Your task to perform on an android device: change your default location settings in chrome Image 0: 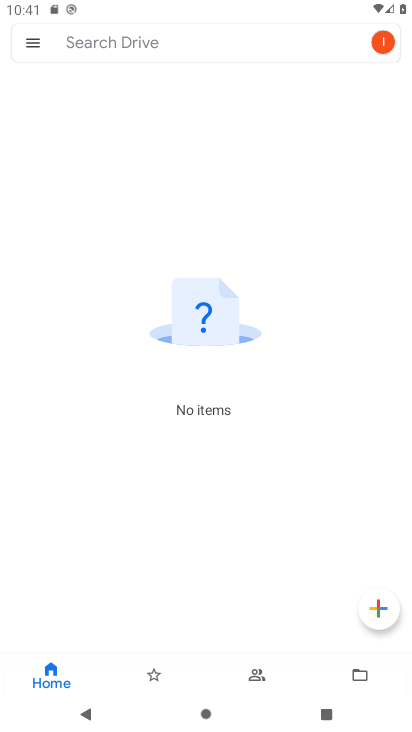
Step 0: press home button
Your task to perform on an android device: change your default location settings in chrome Image 1: 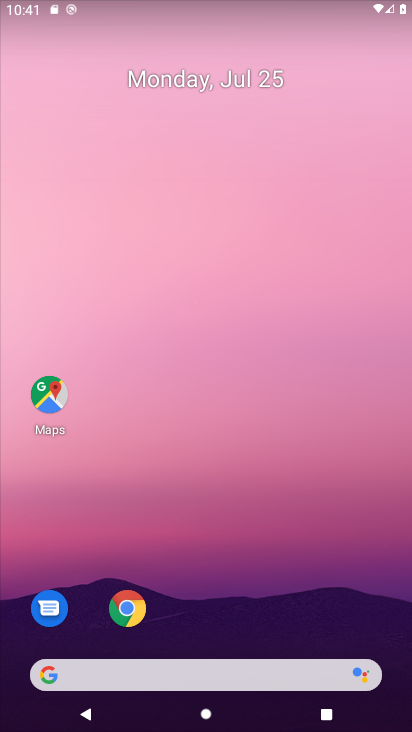
Step 1: click (127, 613)
Your task to perform on an android device: change your default location settings in chrome Image 2: 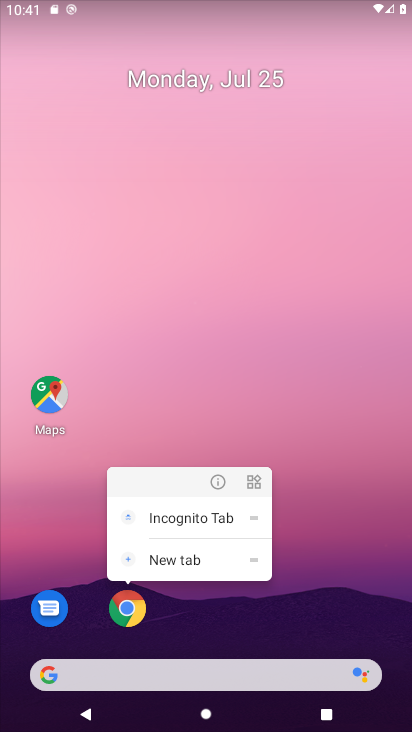
Step 2: click (127, 610)
Your task to perform on an android device: change your default location settings in chrome Image 3: 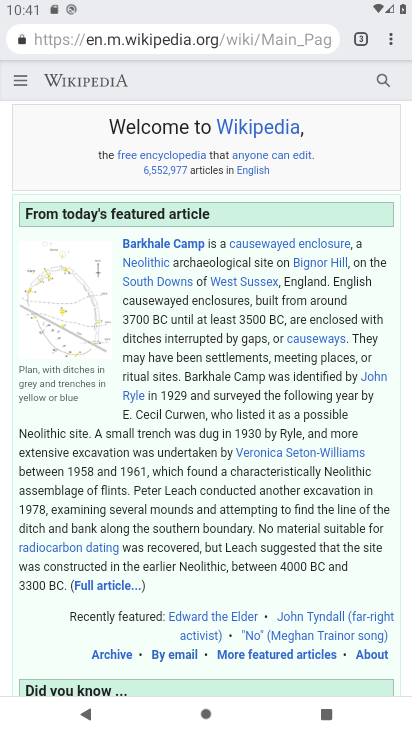
Step 3: click (392, 36)
Your task to perform on an android device: change your default location settings in chrome Image 4: 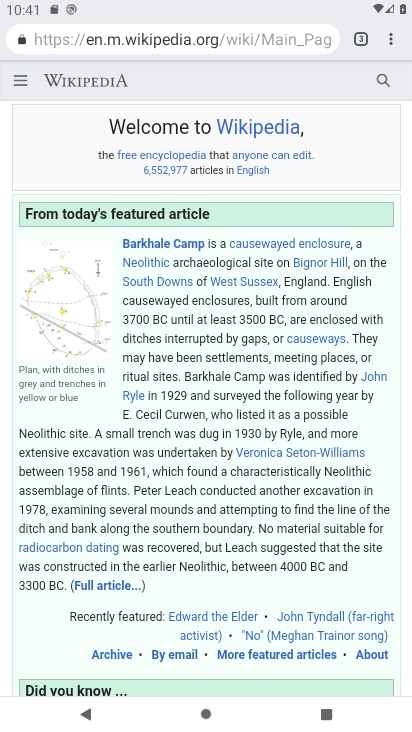
Step 4: click (392, 36)
Your task to perform on an android device: change your default location settings in chrome Image 5: 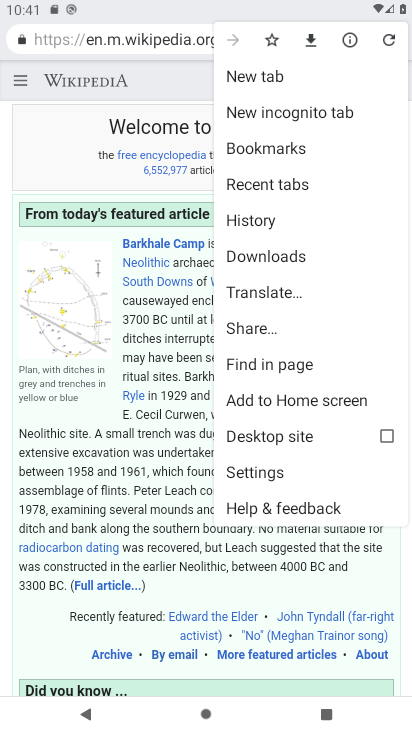
Step 5: click (264, 482)
Your task to perform on an android device: change your default location settings in chrome Image 6: 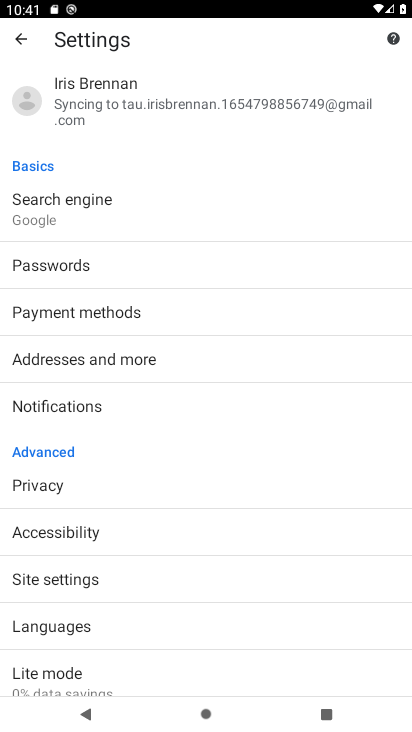
Step 6: click (92, 583)
Your task to perform on an android device: change your default location settings in chrome Image 7: 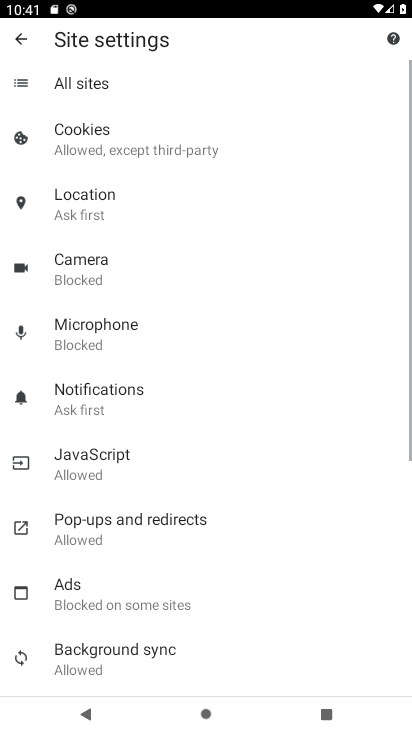
Step 7: click (138, 196)
Your task to perform on an android device: change your default location settings in chrome Image 8: 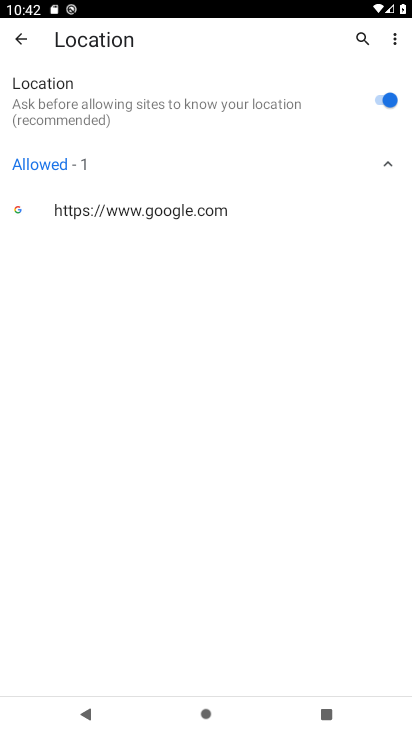
Step 8: click (388, 99)
Your task to perform on an android device: change your default location settings in chrome Image 9: 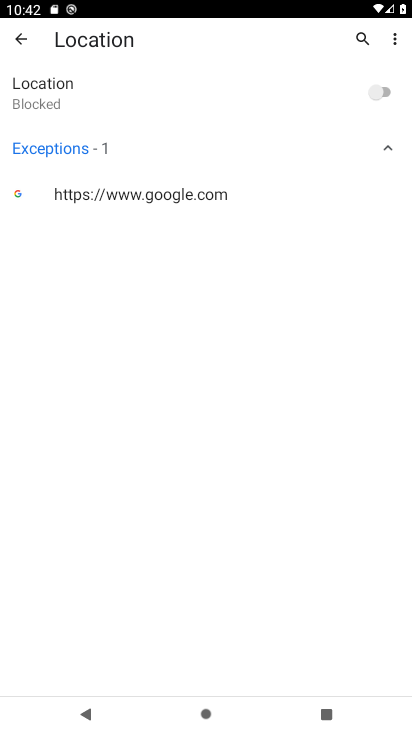
Step 9: task complete